Your task to perform on an android device: Search for vegetarian restaurants on Maps Image 0: 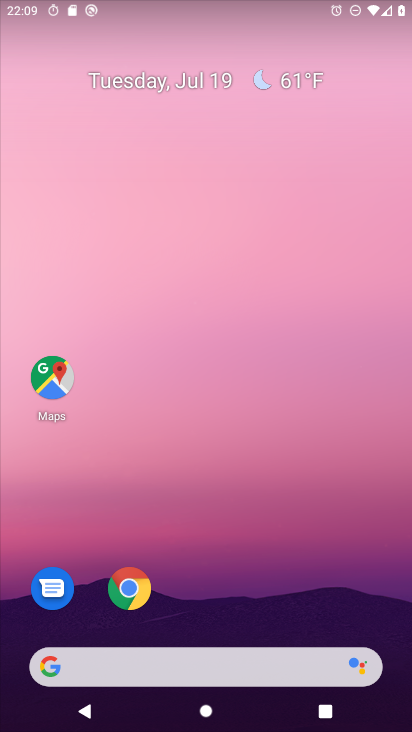
Step 0: press home button
Your task to perform on an android device: Search for vegetarian restaurants on Maps Image 1: 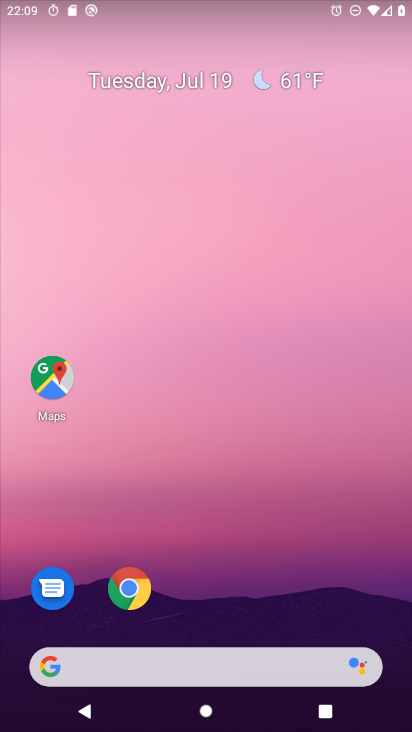
Step 1: click (52, 370)
Your task to perform on an android device: Search for vegetarian restaurants on Maps Image 2: 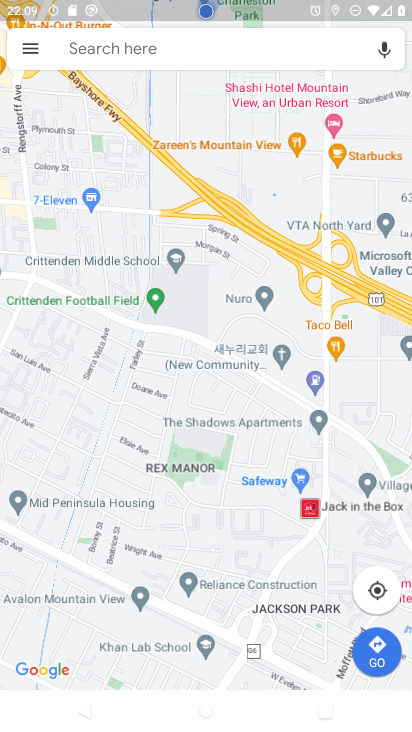
Step 2: click (117, 35)
Your task to perform on an android device: Search for vegetarian restaurants on Maps Image 3: 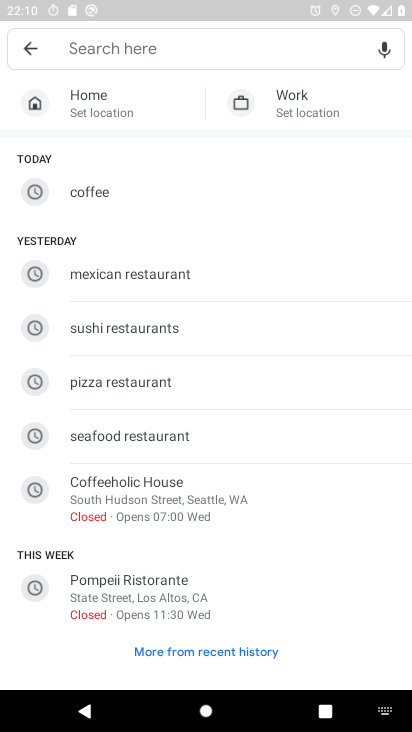
Step 3: type "vegetarian"
Your task to perform on an android device: Search for vegetarian restaurants on Maps Image 4: 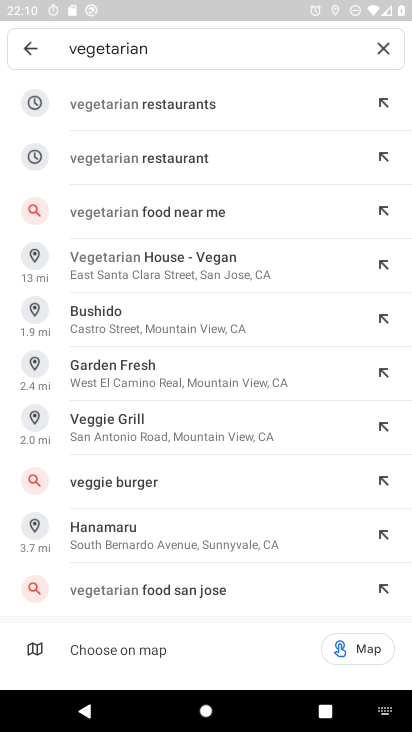
Step 4: click (157, 104)
Your task to perform on an android device: Search for vegetarian restaurants on Maps Image 5: 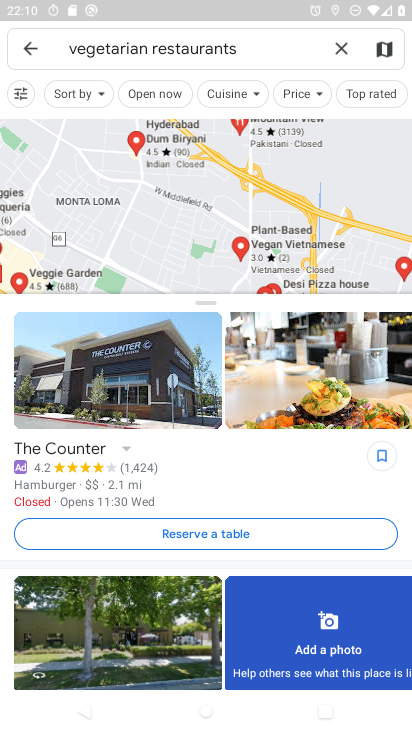
Step 5: task complete